Your task to perform on an android device: open chrome and create a bookmark for the current page Image 0: 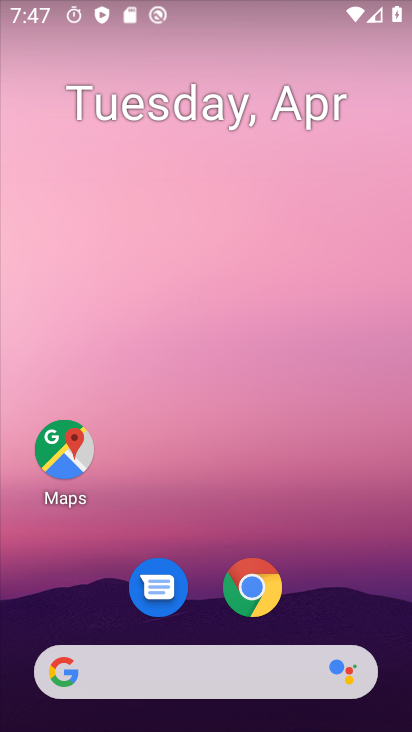
Step 0: click (256, 608)
Your task to perform on an android device: open chrome and create a bookmark for the current page Image 1: 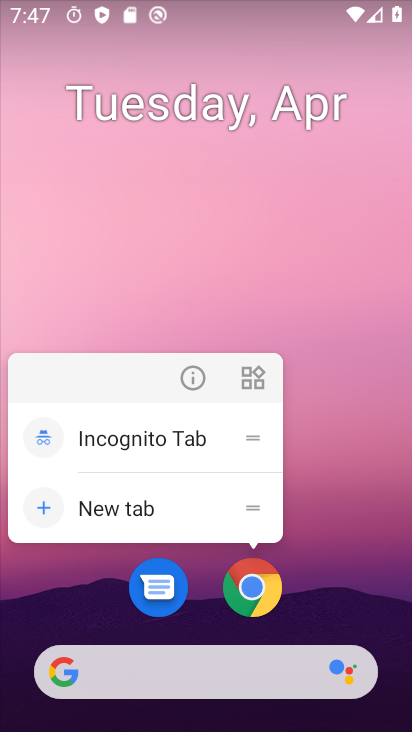
Step 1: click (261, 601)
Your task to perform on an android device: open chrome and create a bookmark for the current page Image 2: 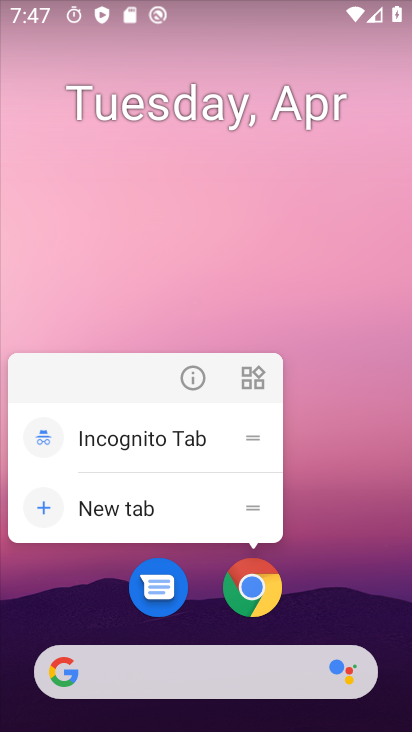
Step 2: click (261, 601)
Your task to perform on an android device: open chrome and create a bookmark for the current page Image 3: 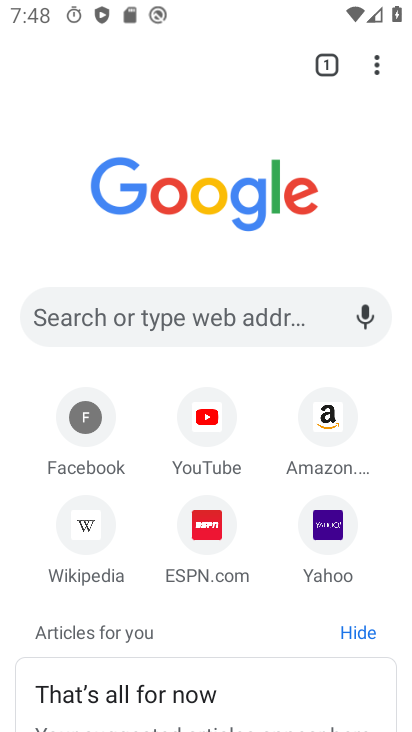
Step 3: task complete